Your task to perform on an android device: check data usage Image 0: 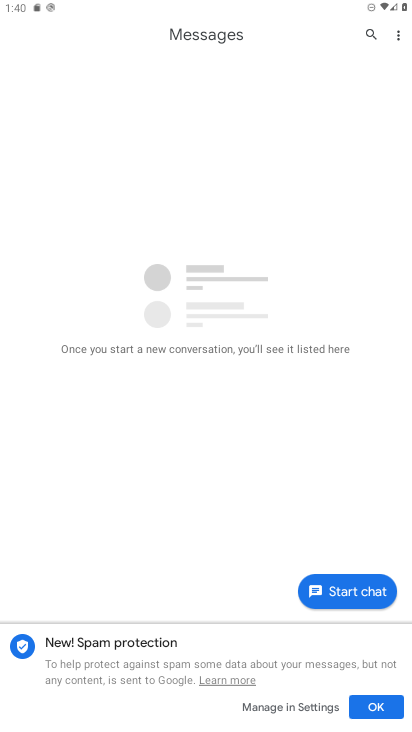
Step 0: press home button
Your task to perform on an android device: check data usage Image 1: 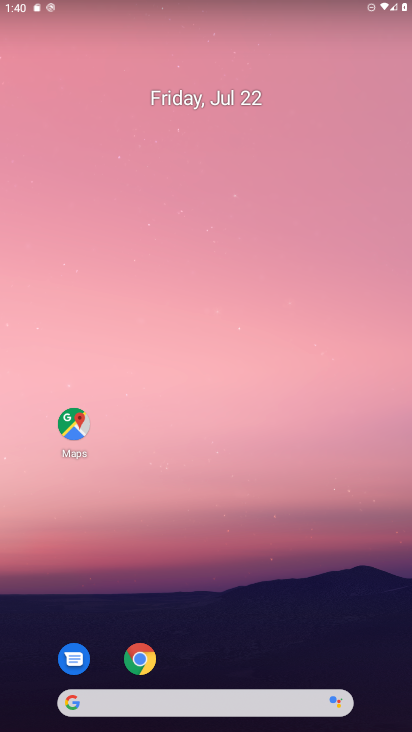
Step 1: drag from (194, 705) to (214, 71)
Your task to perform on an android device: check data usage Image 2: 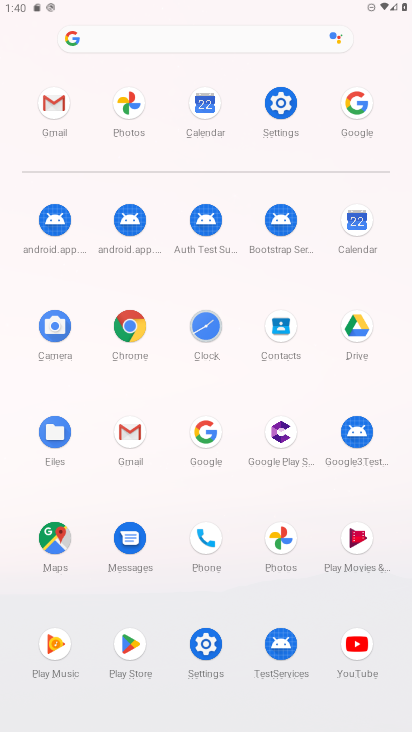
Step 2: click (280, 101)
Your task to perform on an android device: check data usage Image 3: 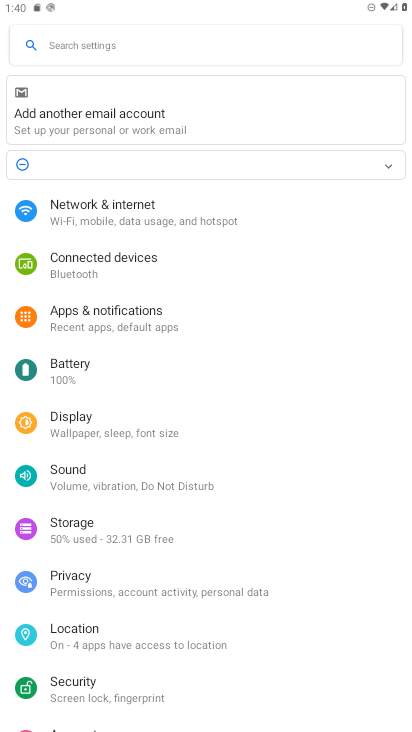
Step 3: click (141, 226)
Your task to perform on an android device: check data usage Image 4: 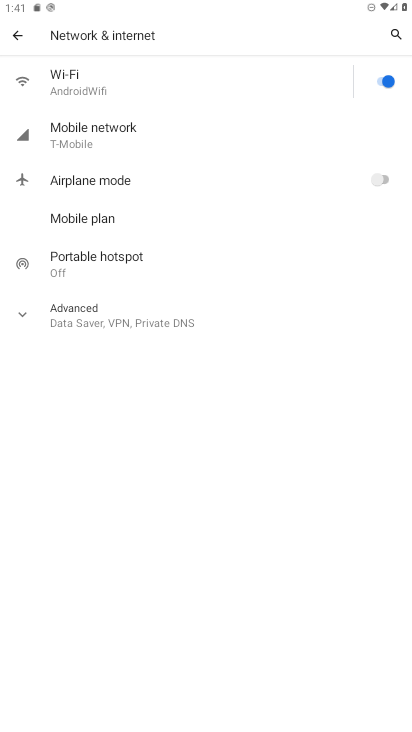
Step 4: click (102, 138)
Your task to perform on an android device: check data usage Image 5: 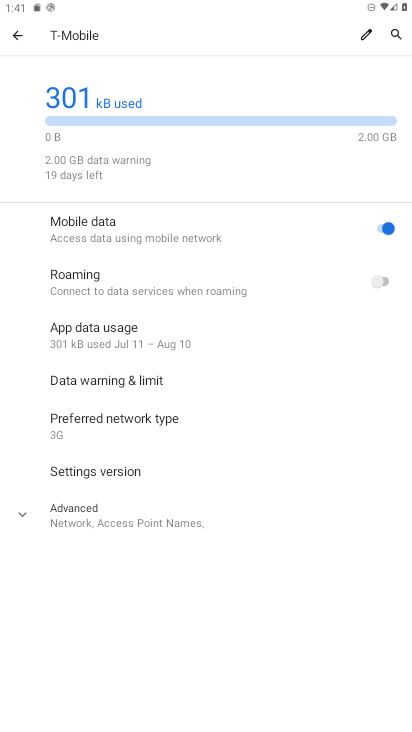
Step 5: task complete